Your task to perform on an android device: When is my next meeting? Image 0: 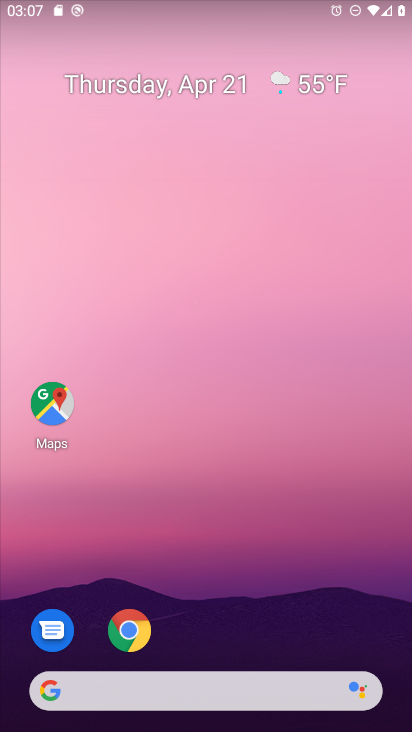
Step 0: drag from (322, 644) to (319, 130)
Your task to perform on an android device: When is my next meeting? Image 1: 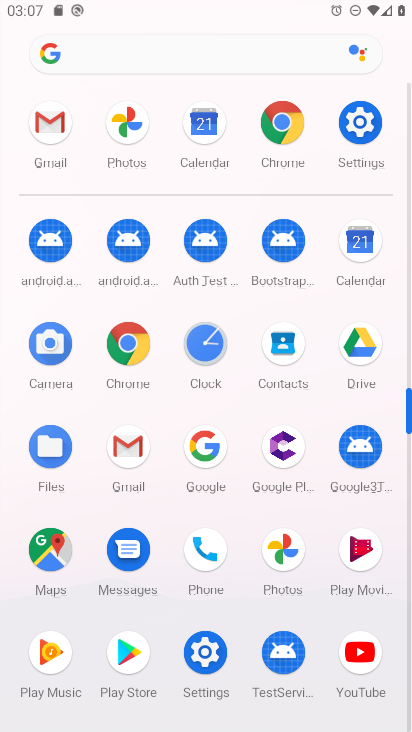
Step 1: click (341, 256)
Your task to perform on an android device: When is my next meeting? Image 2: 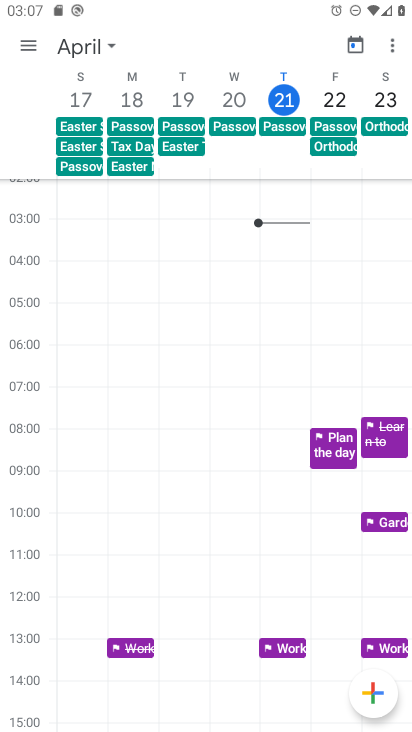
Step 2: task complete